Your task to perform on an android device: Open the stopwatch Image 0: 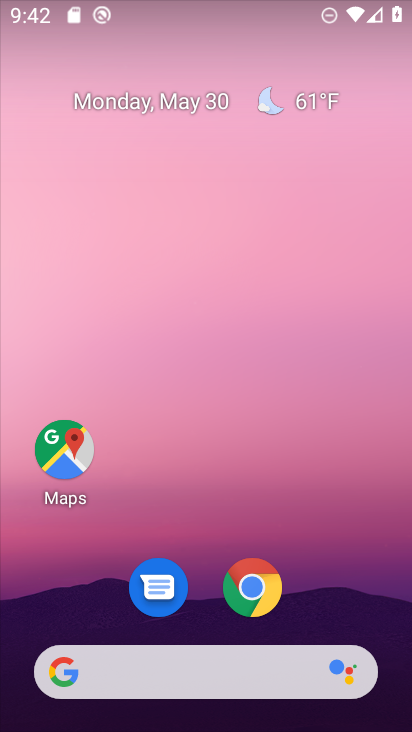
Step 0: drag from (217, 644) to (46, 0)
Your task to perform on an android device: Open the stopwatch Image 1: 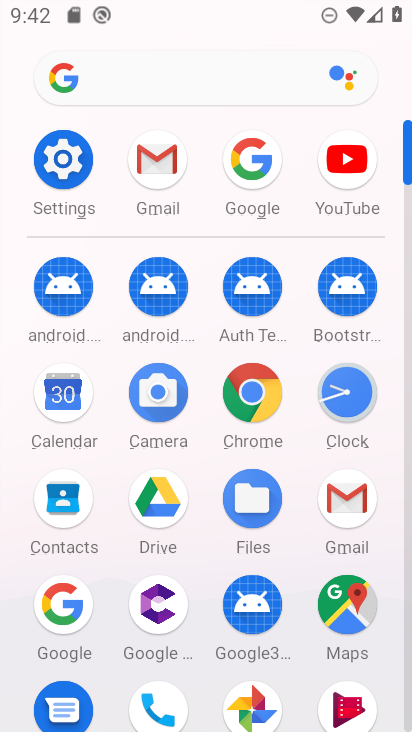
Step 1: click (345, 388)
Your task to perform on an android device: Open the stopwatch Image 2: 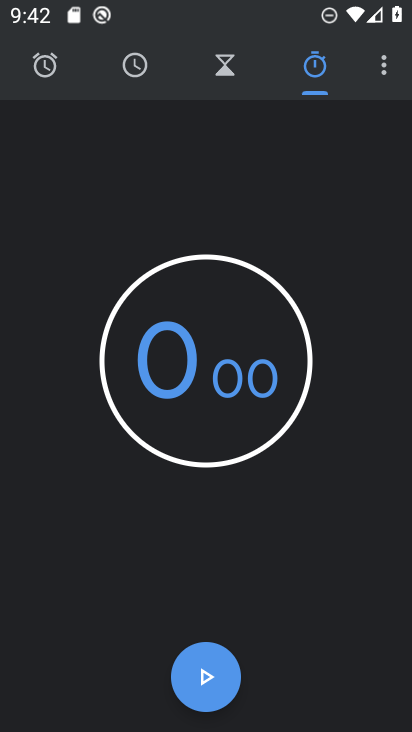
Step 2: click (362, 6)
Your task to perform on an android device: Open the stopwatch Image 3: 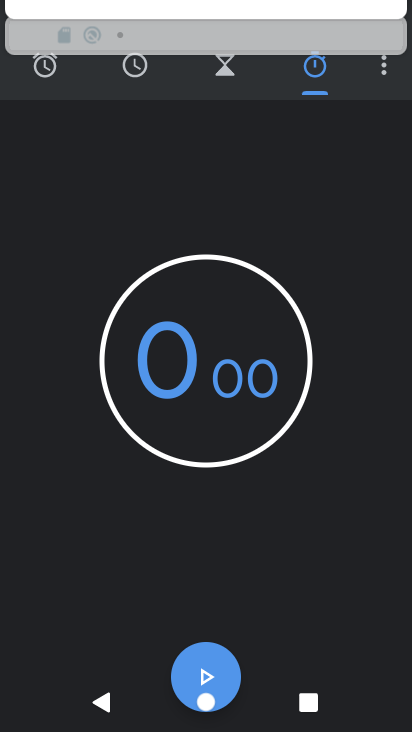
Step 3: task complete